Your task to perform on an android device: Check the weather Image 0: 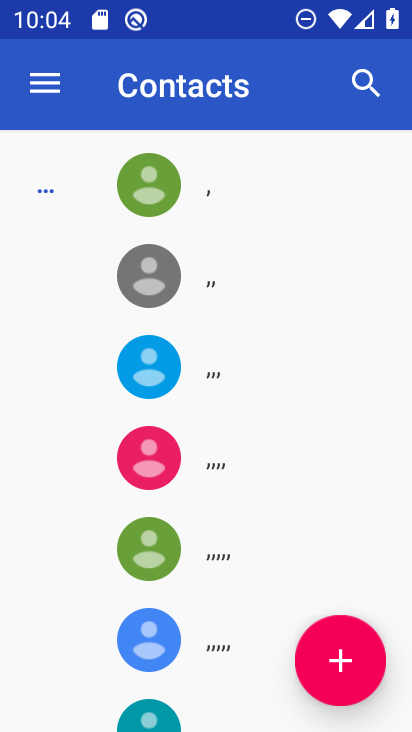
Step 0: press home button
Your task to perform on an android device: Check the weather Image 1: 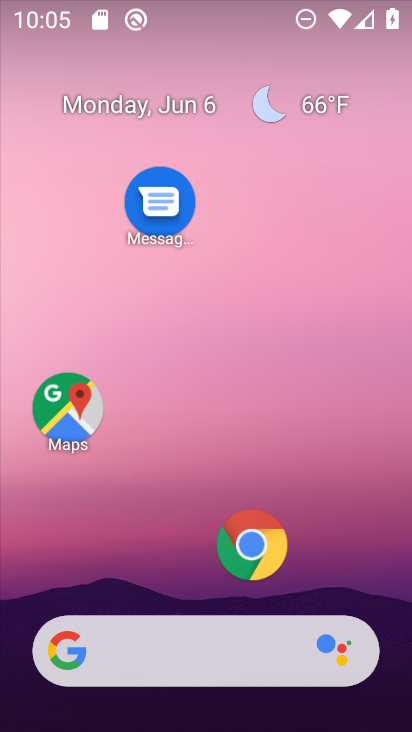
Step 1: drag from (227, 576) to (276, 136)
Your task to perform on an android device: Check the weather Image 2: 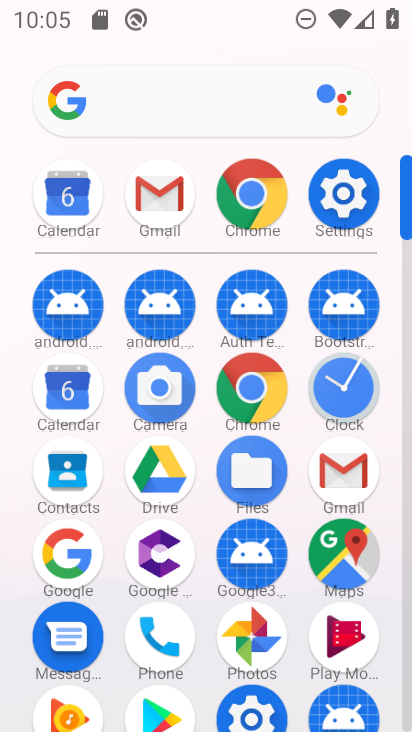
Step 2: click (251, 197)
Your task to perform on an android device: Check the weather Image 3: 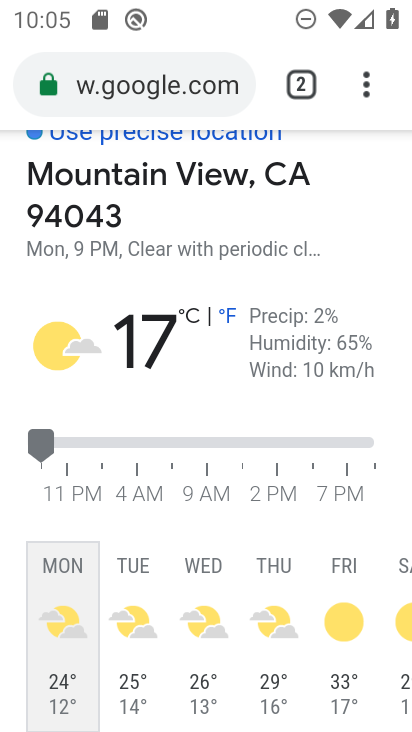
Step 3: click (144, 95)
Your task to perform on an android device: Check the weather Image 4: 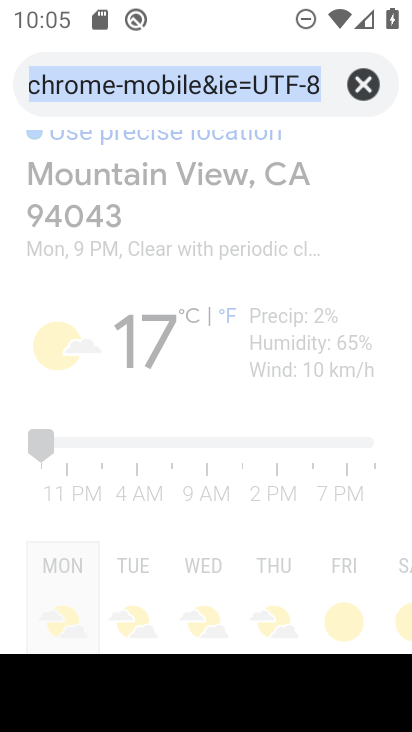
Step 4: type "weather"
Your task to perform on an android device: Check the weather Image 5: 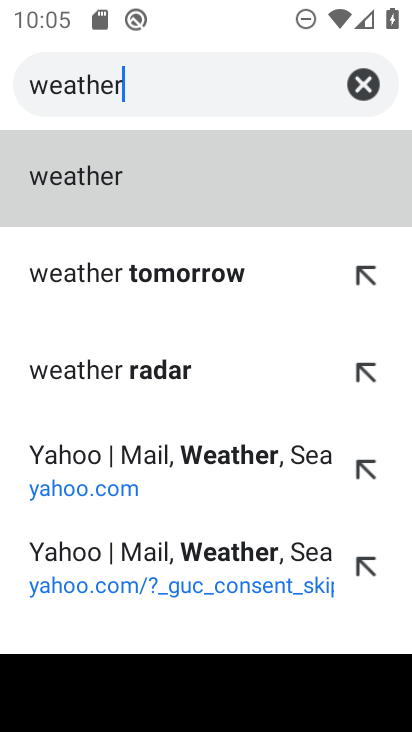
Step 5: click (169, 212)
Your task to perform on an android device: Check the weather Image 6: 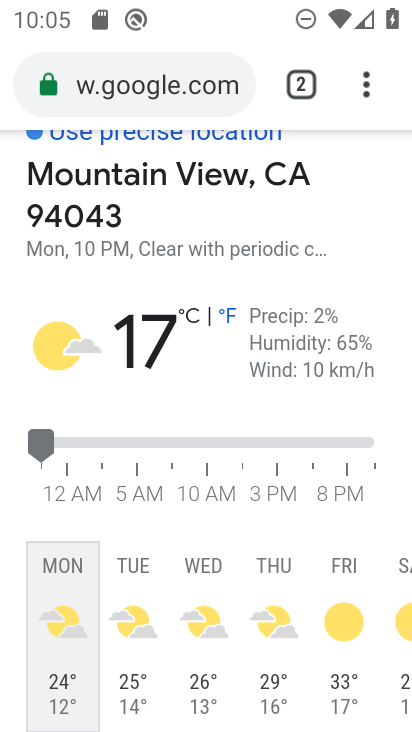
Step 6: task complete